Your task to perform on an android device: turn notification dots on Image 0: 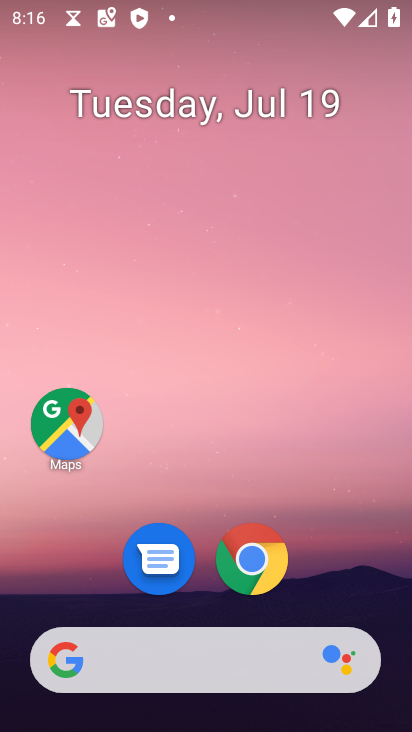
Step 0: drag from (97, 524) to (223, 14)
Your task to perform on an android device: turn notification dots on Image 1: 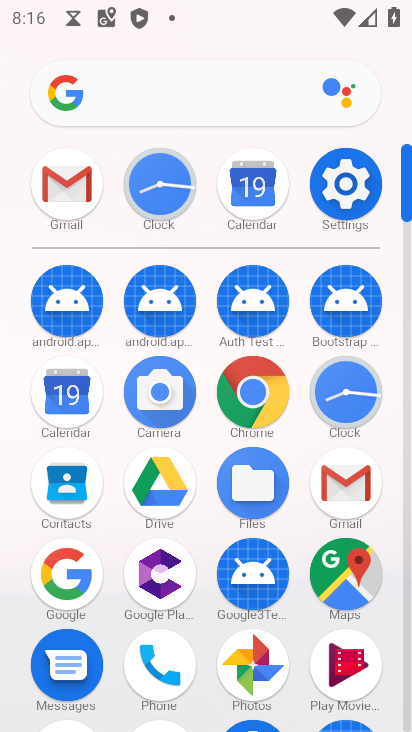
Step 1: click (350, 185)
Your task to perform on an android device: turn notification dots on Image 2: 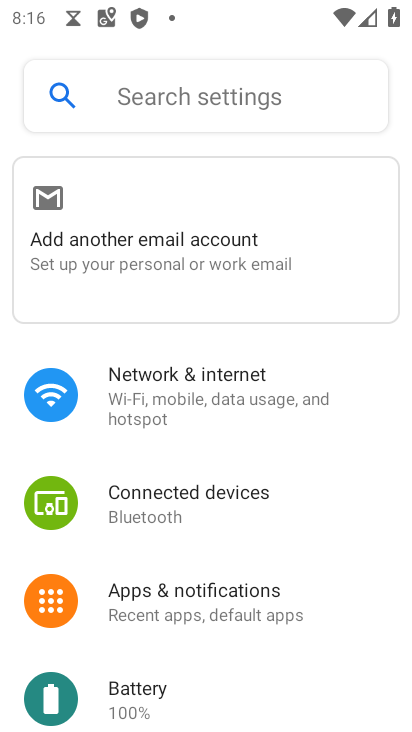
Step 2: click (164, 609)
Your task to perform on an android device: turn notification dots on Image 3: 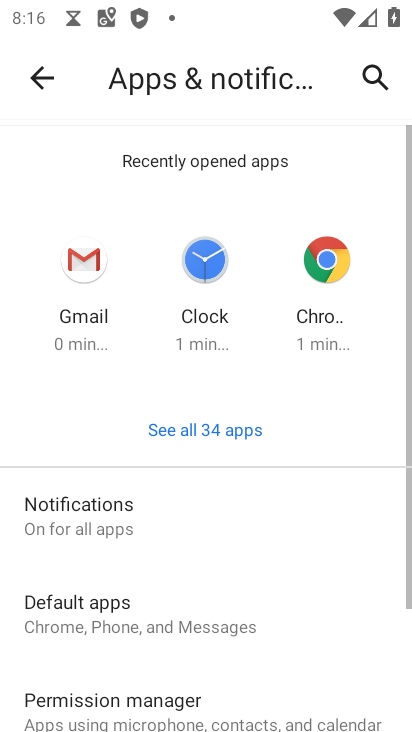
Step 3: click (118, 515)
Your task to perform on an android device: turn notification dots on Image 4: 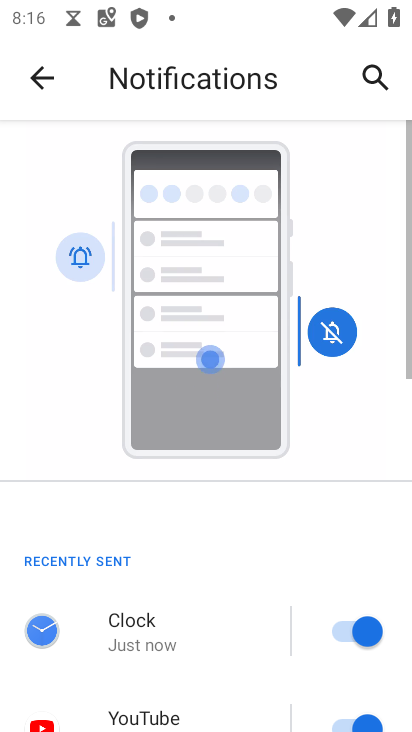
Step 4: drag from (148, 647) to (257, 47)
Your task to perform on an android device: turn notification dots on Image 5: 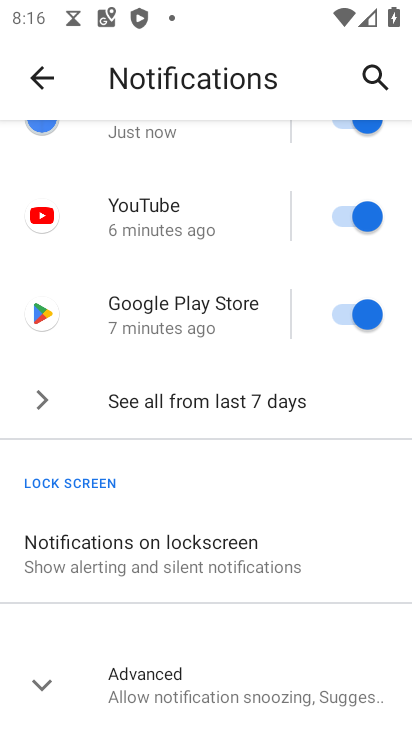
Step 5: drag from (149, 605) to (261, 186)
Your task to perform on an android device: turn notification dots on Image 6: 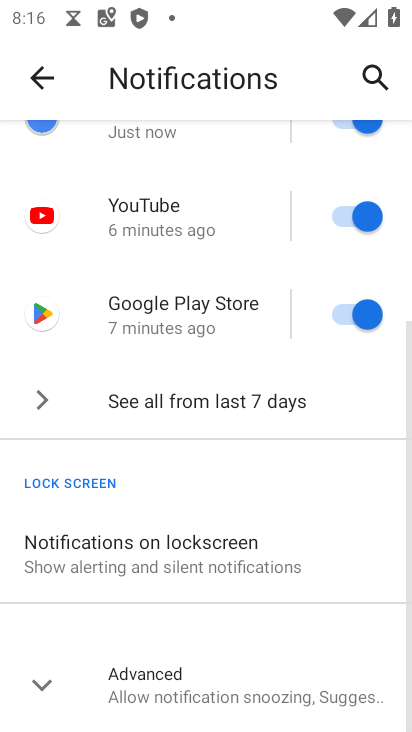
Step 6: click (149, 691)
Your task to perform on an android device: turn notification dots on Image 7: 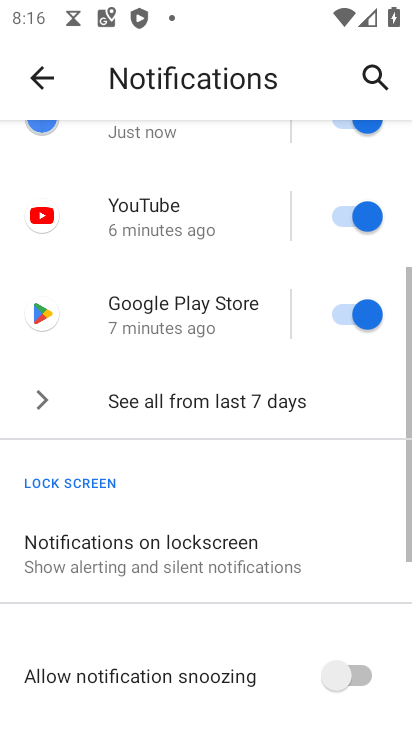
Step 7: drag from (131, 658) to (261, 250)
Your task to perform on an android device: turn notification dots on Image 8: 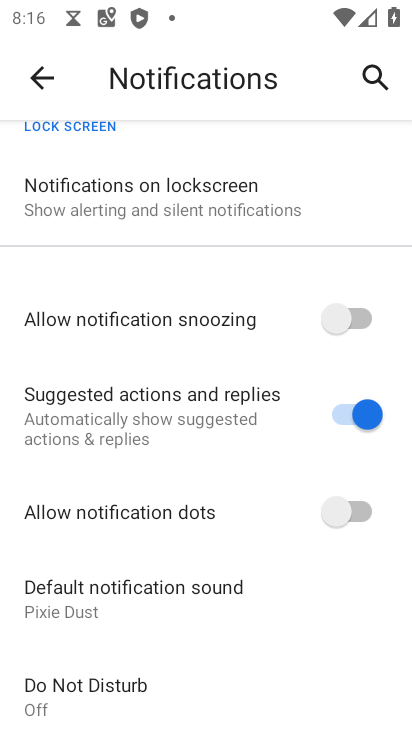
Step 8: click (352, 502)
Your task to perform on an android device: turn notification dots on Image 9: 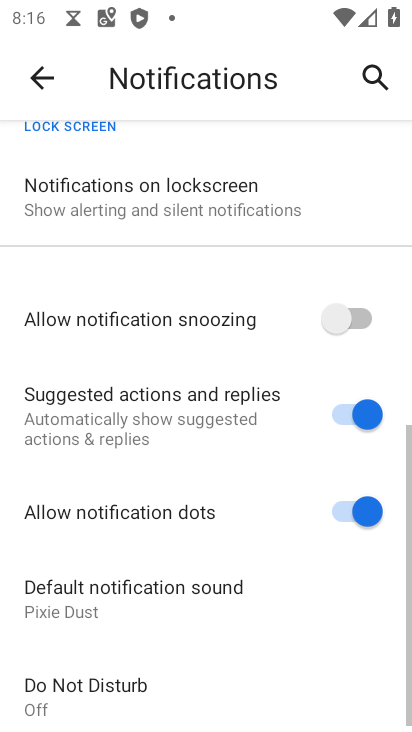
Step 9: task complete